Your task to perform on an android device: Open wifi settings Image 0: 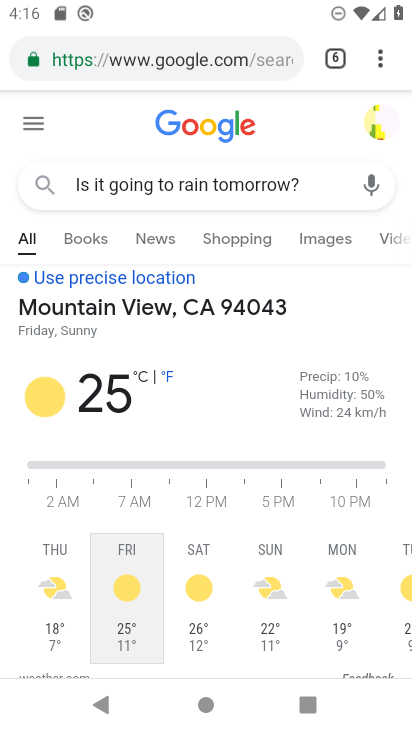
Step 0: press home button
Your task to perform on an android device: Open wifi settings Image 1: 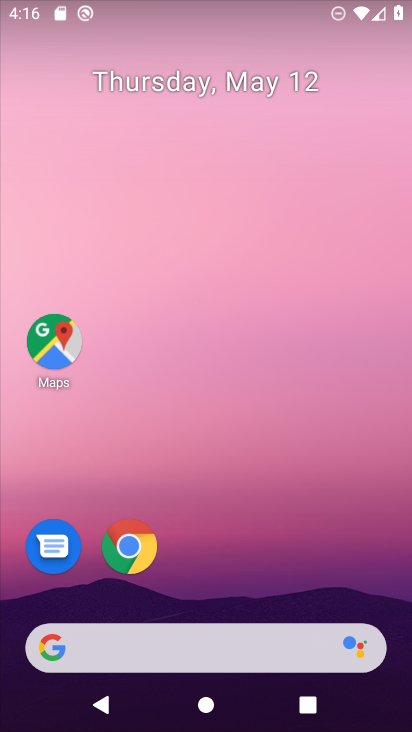
Step 1: drag from (258, 267) to (288, 100)
Your task to perform on an android device: Open wifi settings Image 2: 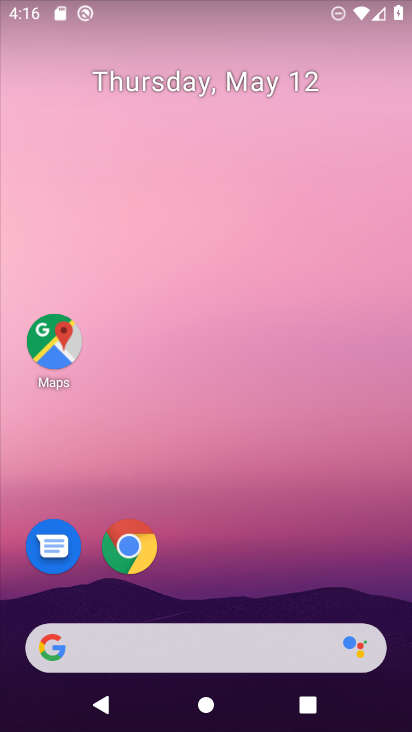
Step 2: drag from (258, 489) to (279, 227)
Your task to perform on an android device: Open wifi settings Image 3: 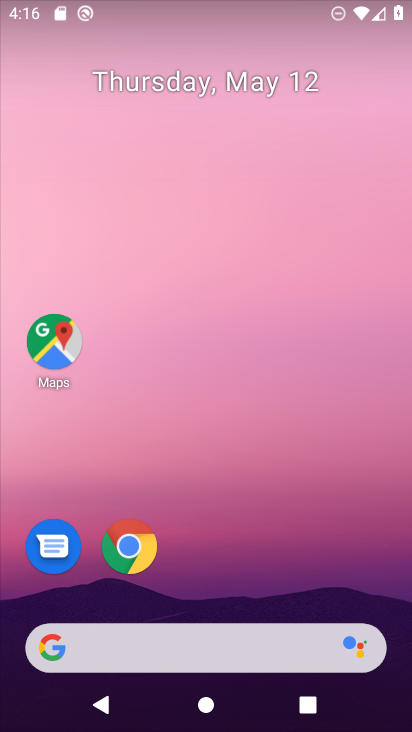
Step 3: drag from (207, 574) to (205, 282)
Your task to perform on an android device: Open wifi settings Image 4: 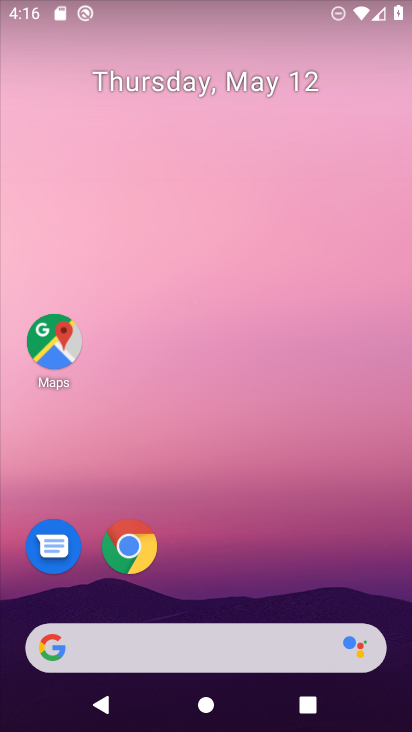
Step 4: drag from (224, 660) to (233, 272)
Your task to perform on an android device: Open wifi settings Image 5: 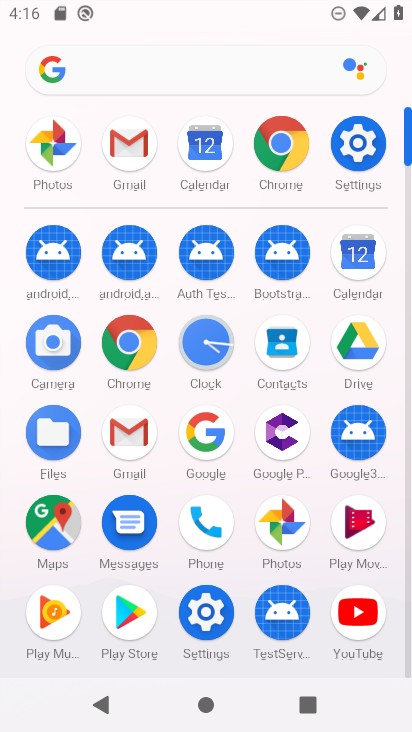
Step 5: click (350, 140)
Your task to perform on an android device: Open wifi settings Image 6: 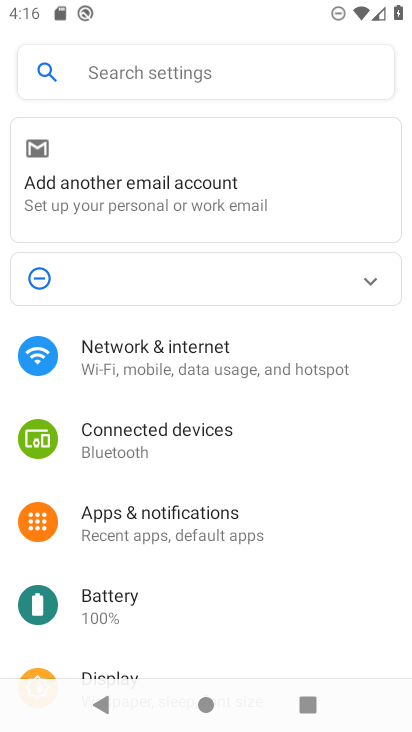
Step 6: click (157, 362)
Your task to perform on an android device: Open wifi settings Image 7: 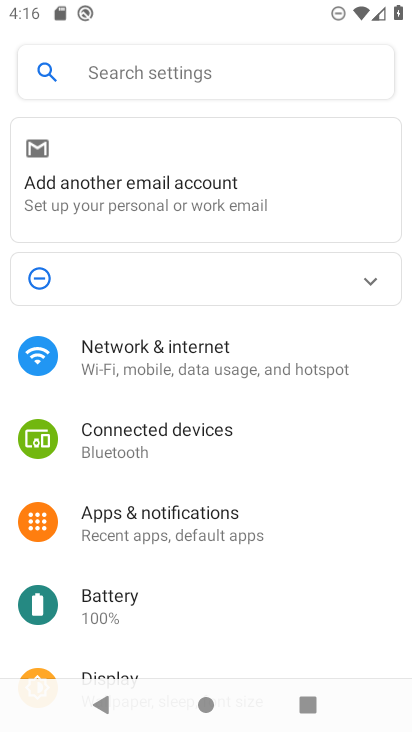
Step 7: click (128, 354)
Your task to perform on an android device: Open wifi settings Image 8: 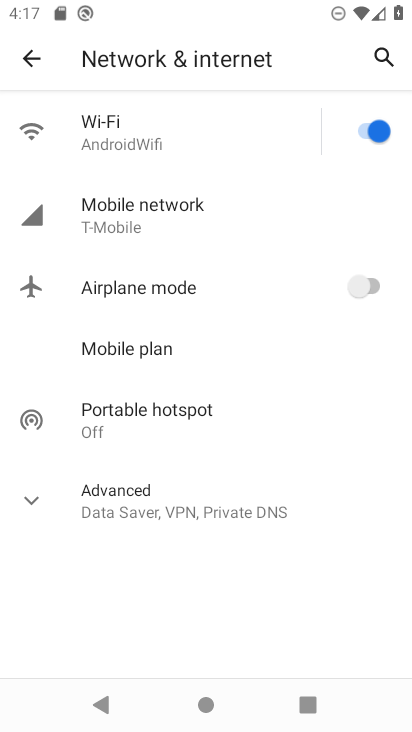
Step 8: task complete